Your task to perform on an android device: toggle show notifications on the lock screen Image 0: 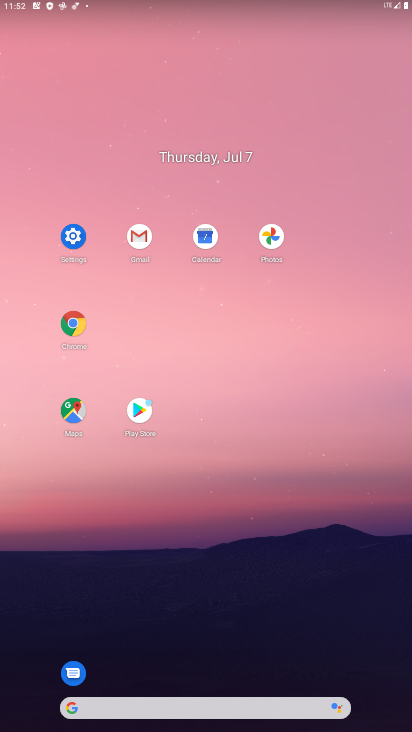
Step 0: click (73, 235)
Your task to perform on an android device: toggle show notifications on the lock screen Image 1: 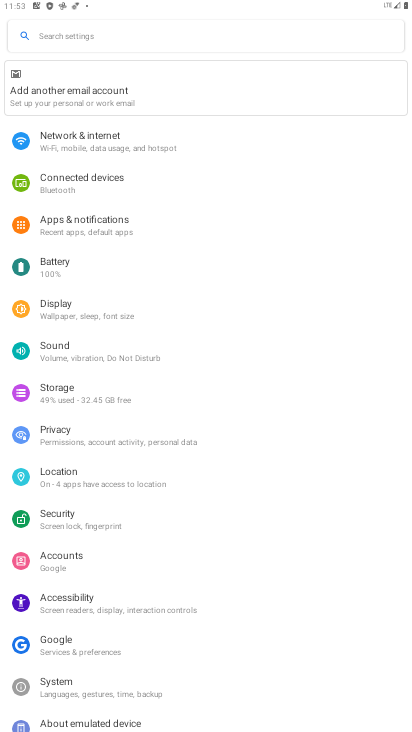
Step 1: click (118, 245)
Your task to perform on an android device: toggle show notifications on the lock screen Image 2: 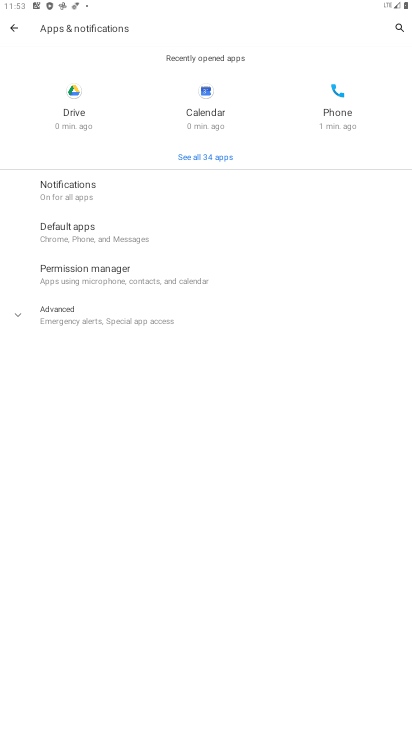
Step 2: click (89, 187)
Your task to perform on an android device: toggle show notifications on the lock screen Image 3: 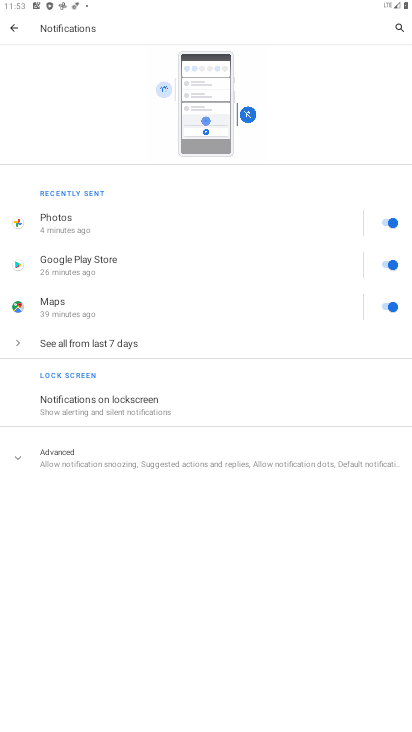
Step 3: click (150, 427)
Your task to perform on an android device: toggle show notifications on the lock screen Image 4: 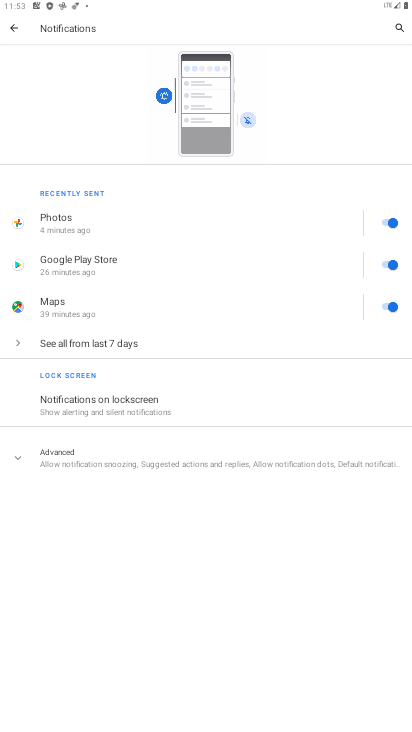
Step 4: click (143, 410)
Your task to perform on an android device: toggle show notifications on the lock screen Image 5: 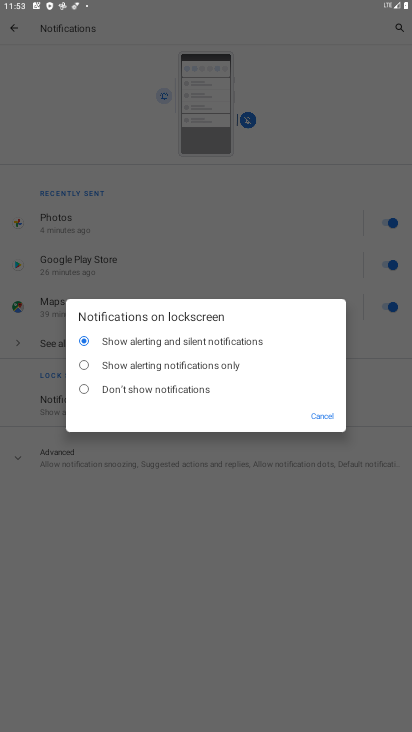
Step 5: click (146, 369)
Your task to perform on an android device: toggle show notifications on the lock screen Image 6: 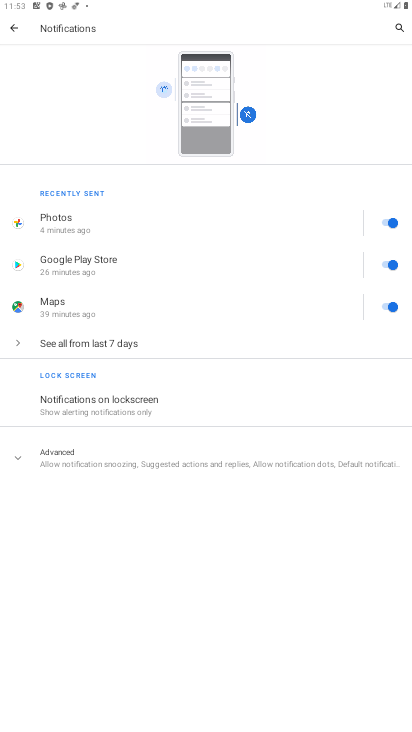
Step 6: task complete